Your task to perform on an android device: Open privacy settings Image 0: 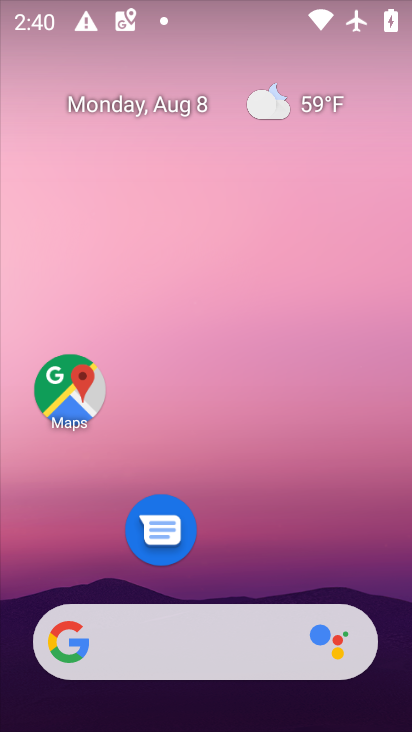
Step 0: drag from (223, 601) to (219, 60)
Your task to perform on an android device: Open privacy settings Image 1: 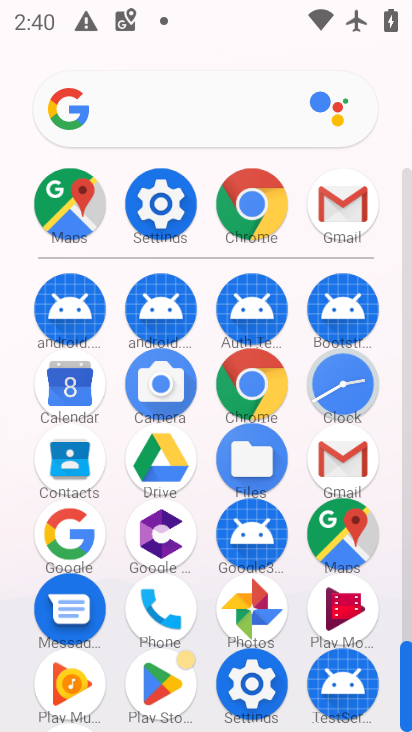
Step 1: click (158, 203)
Your task to perform on an android device: Open privacy settings Image 2: 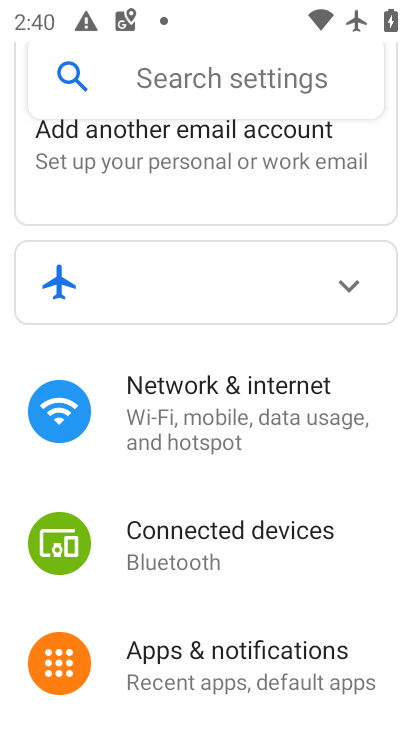
Step 2: drag from (172, 625) to (160, 361)
Your task to perform on an android device: Open privacy settings Image 3: 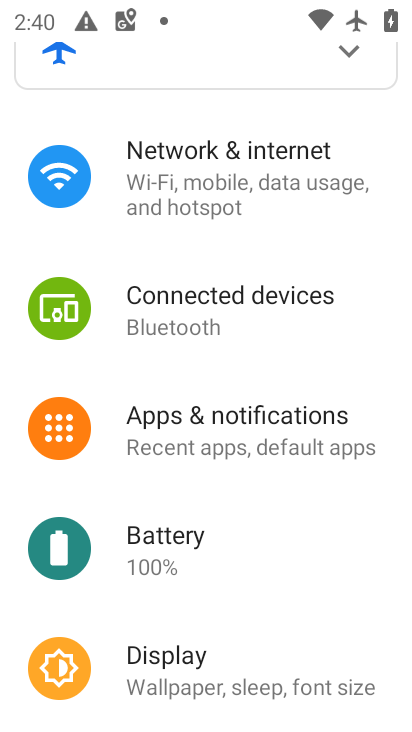
Step 3: drag from (187, 663) to (181, 261)
Your task to perform on an android device: Open privacy settings Image 4: 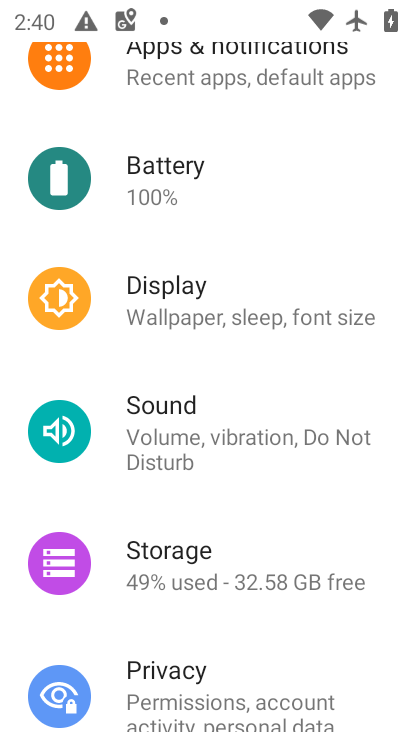
Step 4: click (184, 672)
Your task to perform on an android device: Open privacy settings Image 5: 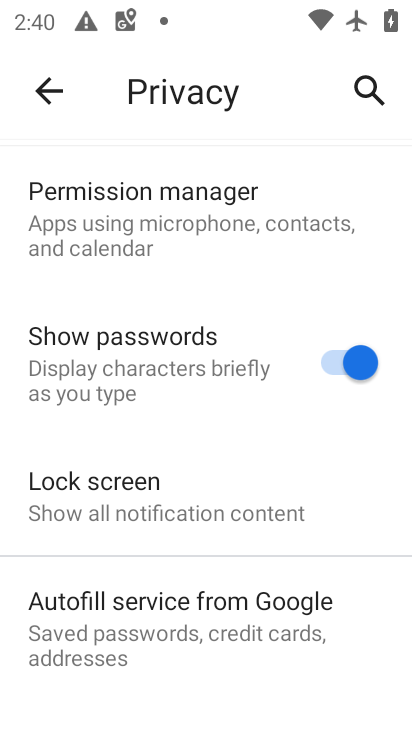
Step 5: task complete